Your task to perform on an android device: find photos in the google photos app Image 0: 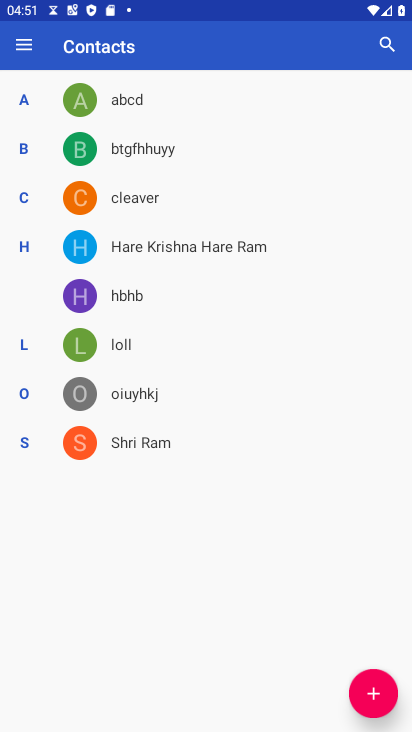
Step 0: press home button
Your task to perform on an android device: find photos in the google photos app Image 1: 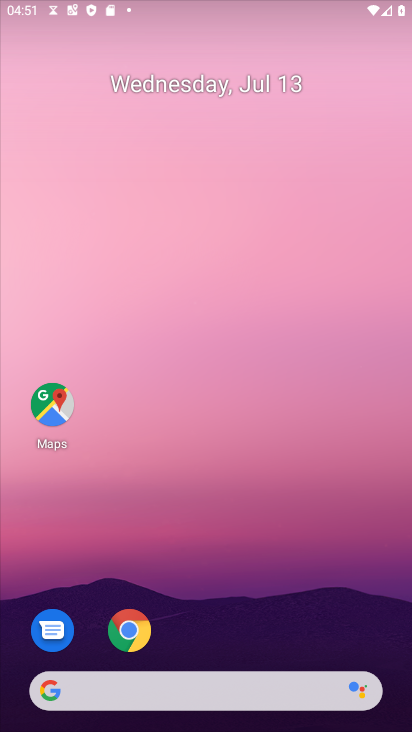
Step 1: drag from (251, 684) to (329, 11)
Your task to perform on an android device: find photos in the google photos app Image 2: 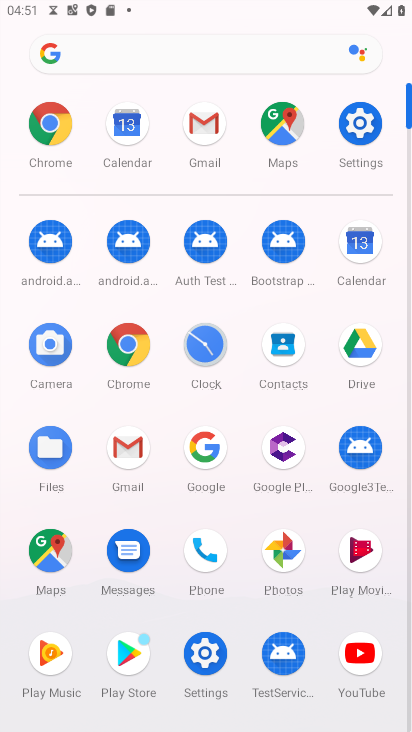
Step 2: click (288, 554)
Your task to perform on an android device: find photos in the google photos app Image 3: 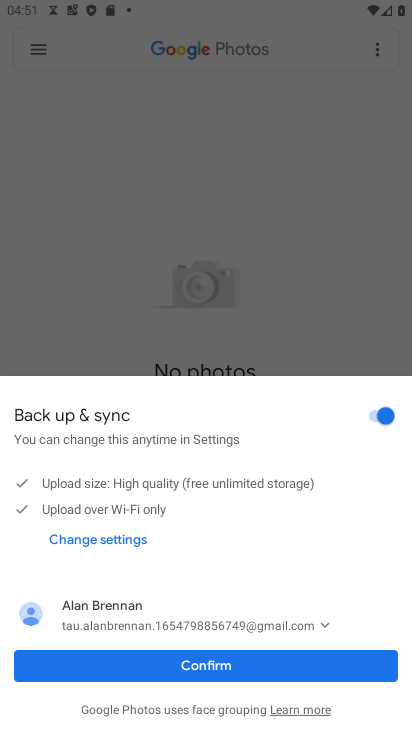
Step 3: click (241, 669)
Your task to perform on an android device: find photos in the google photos app Image 4: 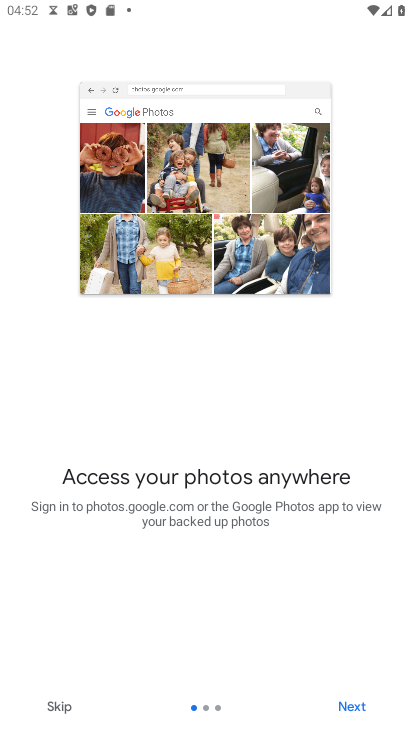
Step 4: click (344, 704)
Your task to perform on an android device: find photos in the google photos app Image 5: 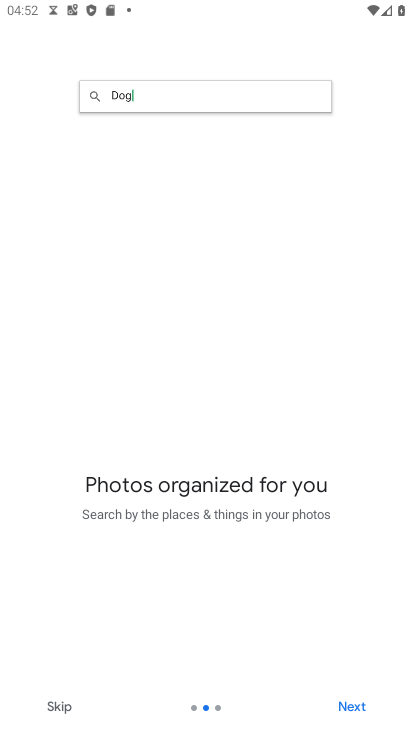
Step 5: click (344, 704)
Your task to perform on an android device: find photos in the google photos app Image 6: 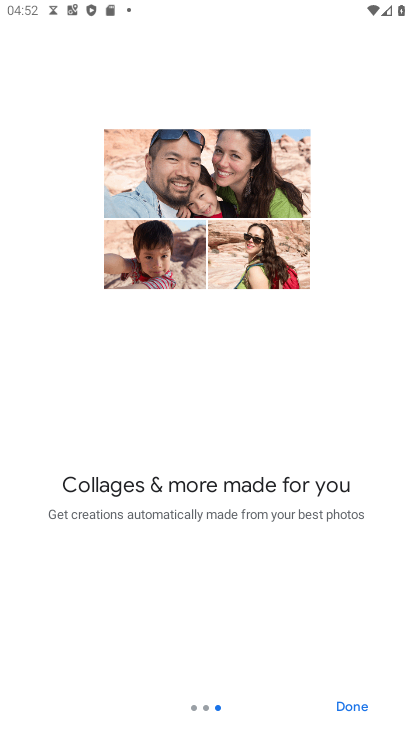
Step 6: click (346, 703)
Your task to perform on an android device: find photos in the google photos app Image 7: 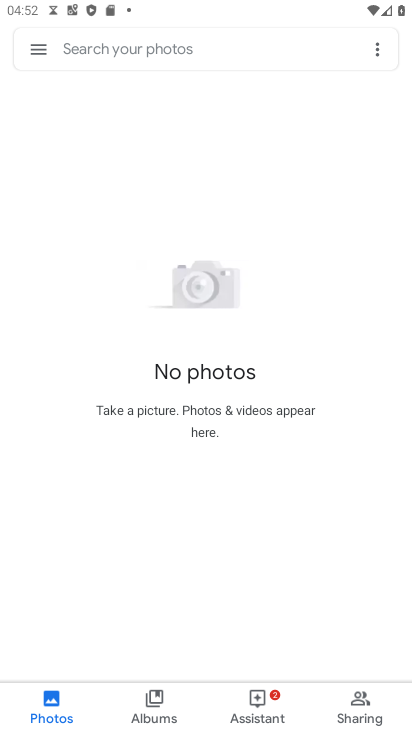
Step 7: task complete